Your task to perform on an android device: Open Google Chrome Image 0: 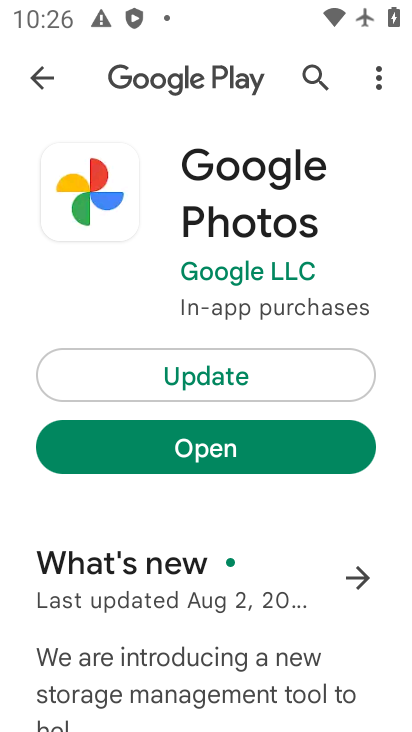
Step 0: press home button
Your task to perform on an android device: Open Google Chrome Image 1: 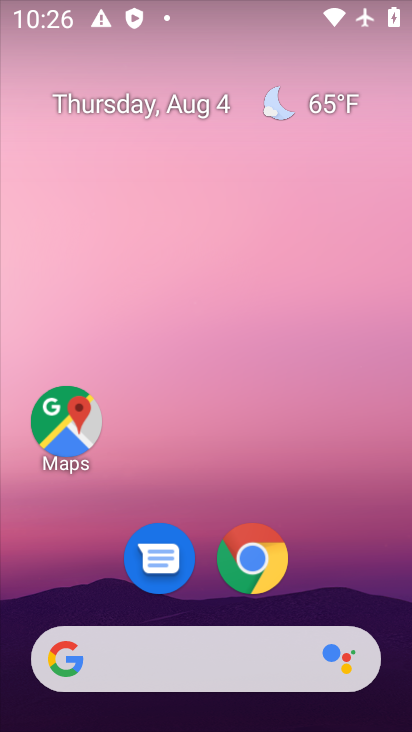
Step 1: drag from (341, 484) to (311, 58)
Your task to perform on an android device: Open Google Chrome Image 2: 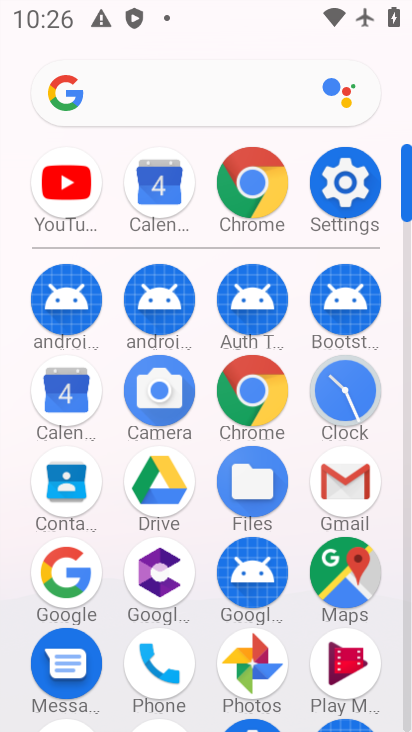
Step 2: click (257, 389)
Your task to perform on an android device: Open Google Chrome Image 3: 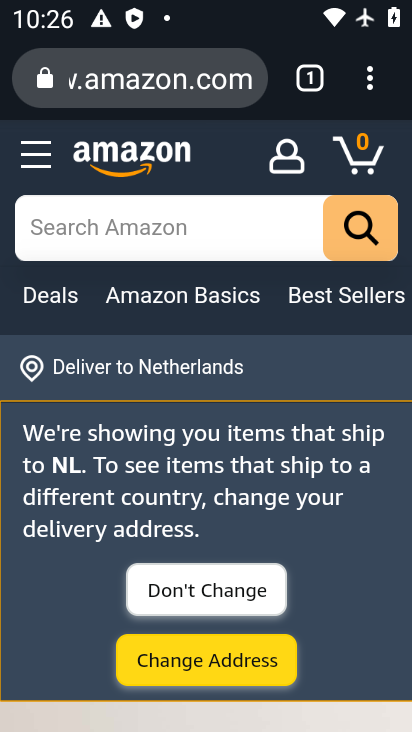
Step 3: task complete